Your task to perform on an android device: Go to network settings Image 0: 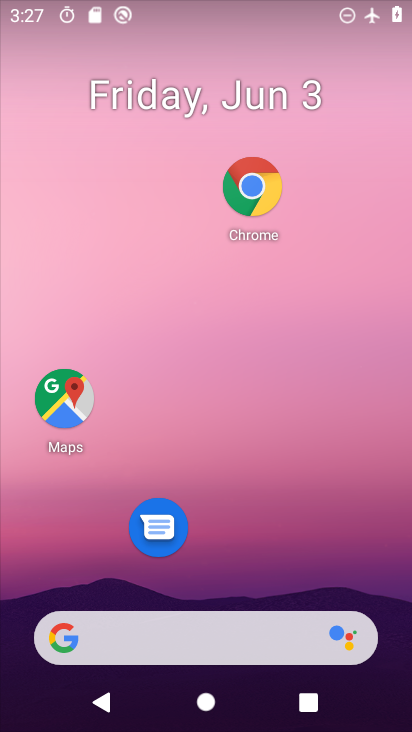
Step 0: drag from (221, 583) to (236, 214)
Your task to perform on an android device: Go to network settings Image 1: 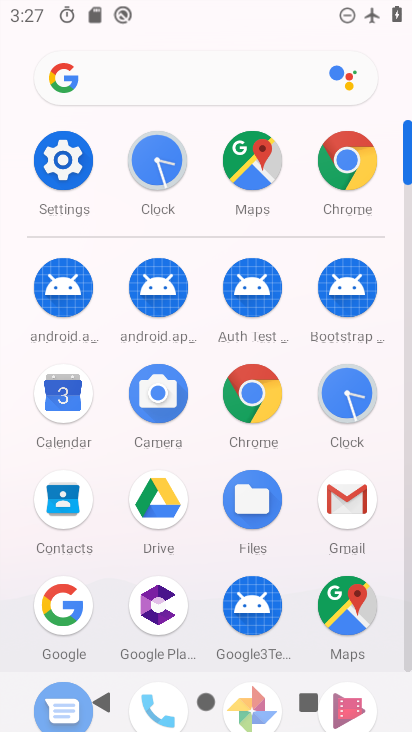
Step 1: click (65, 150)
Your task to perform on an android device: Go to network settings Image 2: 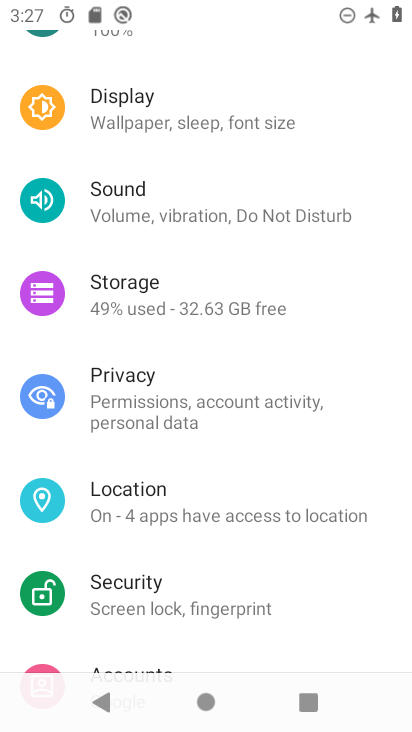
Step 2: drag from (212, 122) to (176, 607)
Your task to perform on an android device: Go to network settings Image 3: 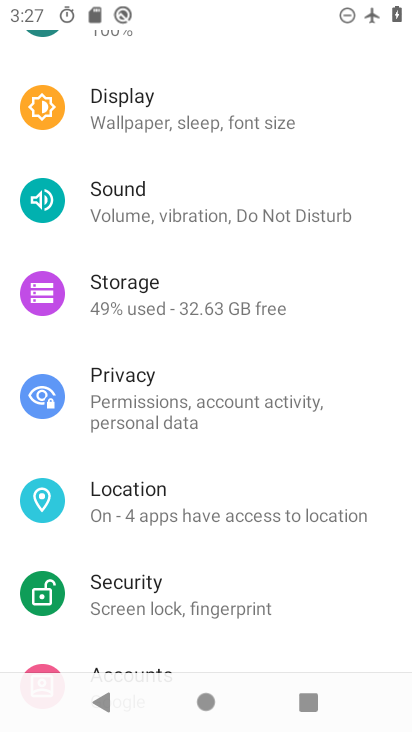
Step 3: drag from (225, 157) to (230, 438)
Your task to perform on an android device: Go to network settings Image 4: 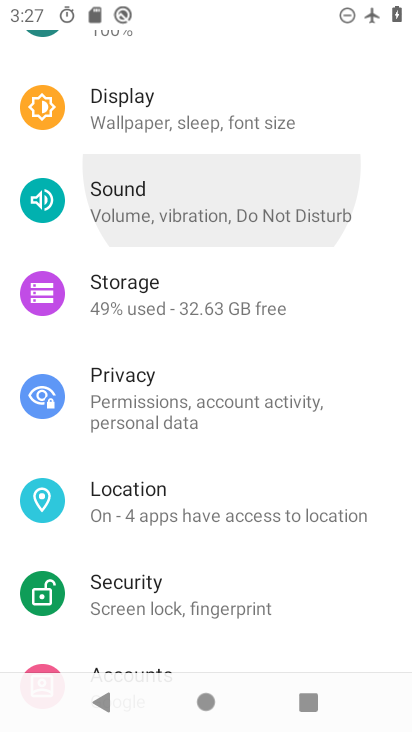
Step 4: drag from (207, 203) to (167, 411)
Your task to perform on an android device: Go to network settings Image 5: 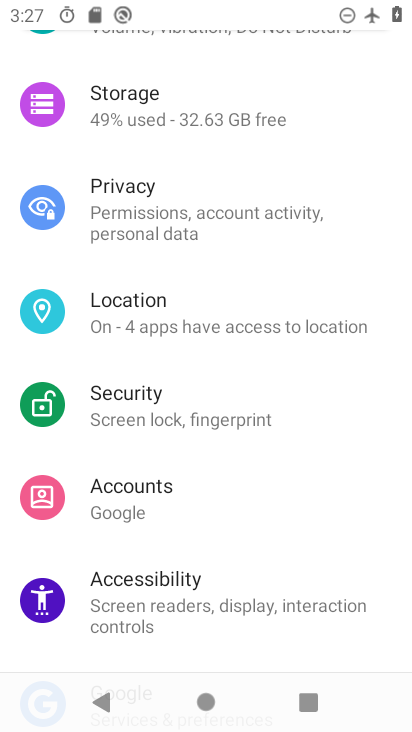
Step 5: drag from (148, 169) to (176, 516)
Your task to perform on an android device: Go to network settings Image 6: 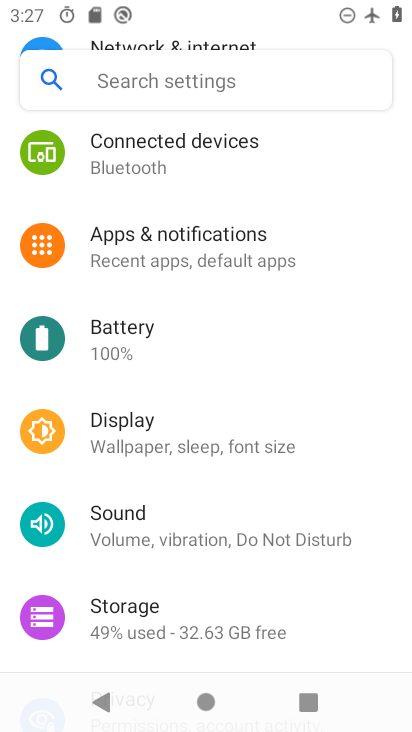
Step 6: drag from (213, 250) to (219, 511)
Your task to perform on an android device: Go to network settings Image 7: 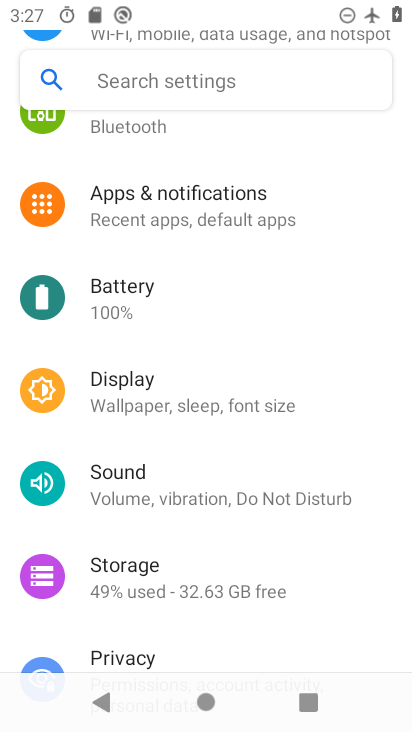
Step 7: drag from (222, 237) to (244, 580)
Your task to perform on an android device: Go to network settings Image 8: 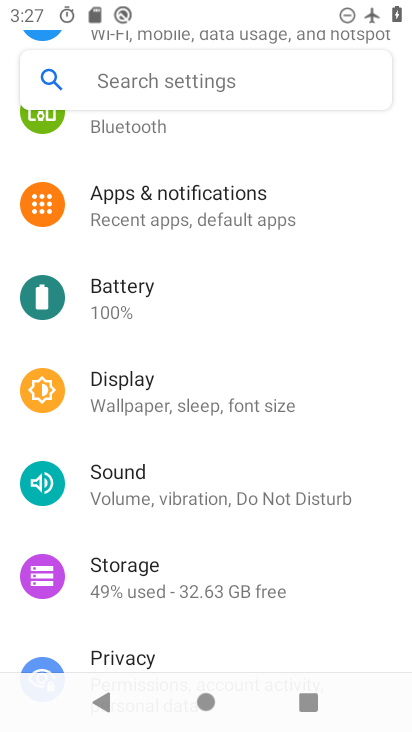
Step 8: drag from (215, 158) to (273, 554)
Your task to perform on an android device: Go to network settings Image 9: 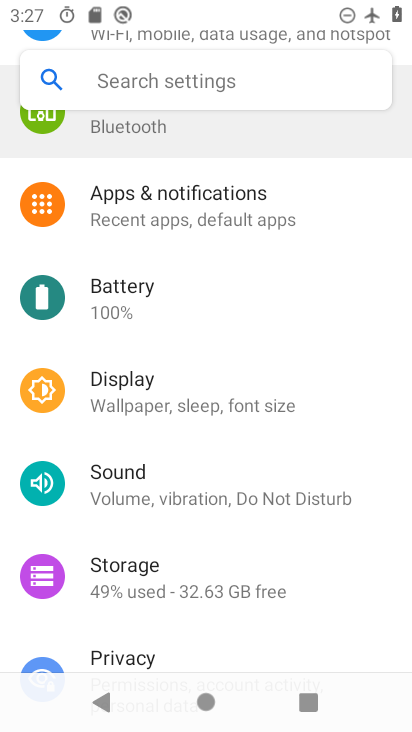
Step 9: drag from (286, 182) to (270, 551)
Your task to perform on an android device: Go to network settings Image 10: 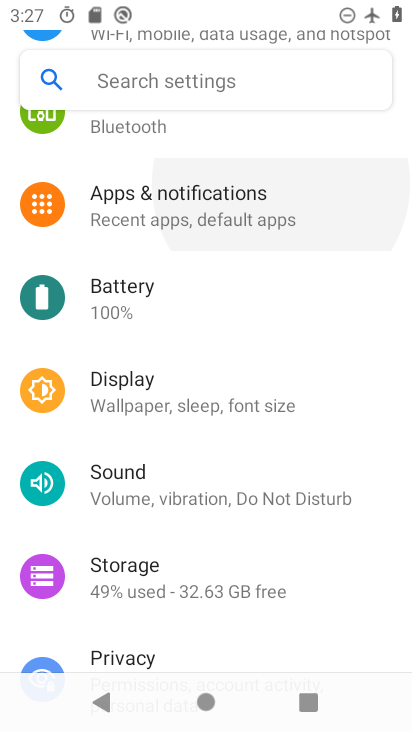
Step 10: drag from (192, 288) to (162, 516)
Your task to perform on an android device: Go to network settings Image 11: 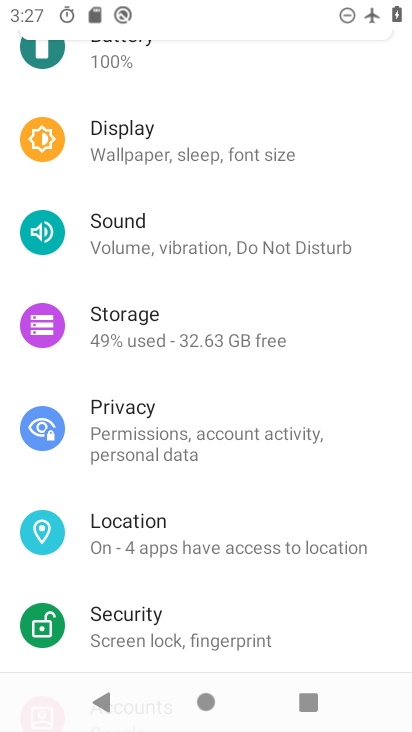
Step 11: drag from (156, 262) to (177, 561)
Your task to perform on an android device: Go to network settings Image 12: 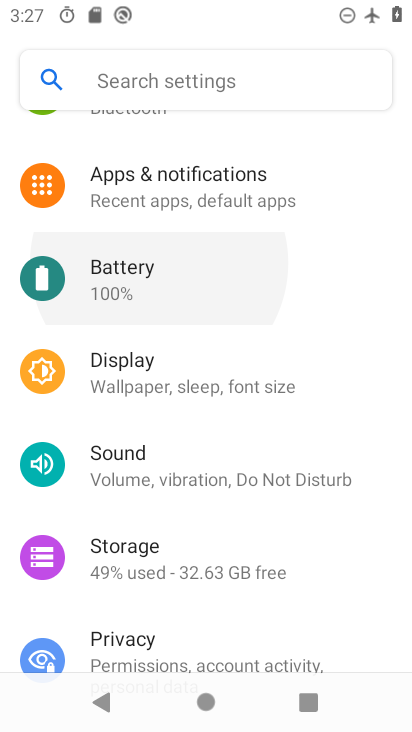
Step 12: drag from (176, 186) to (241, 570)
Your task to perform on an android device: Go to network settings Image 13: 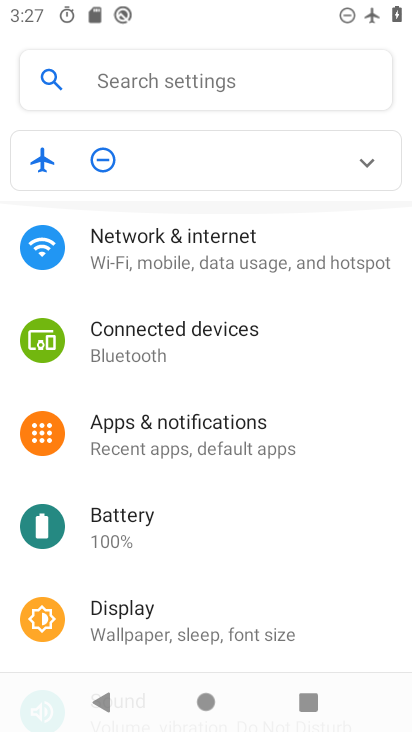
Step 13: drag from (204, 143) to (169, 366)
Your task to perform on an android device: Go to network settings Image 14: 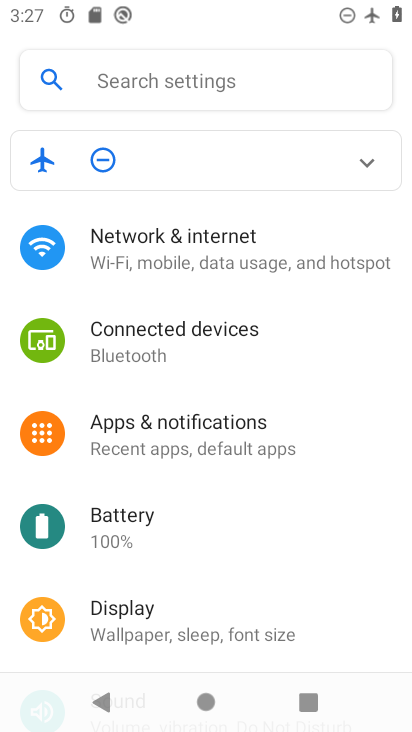
Step 14: drag from (127, 166) to (177, 589)
Your task to perform on an android device: Go to network settings Image 15: 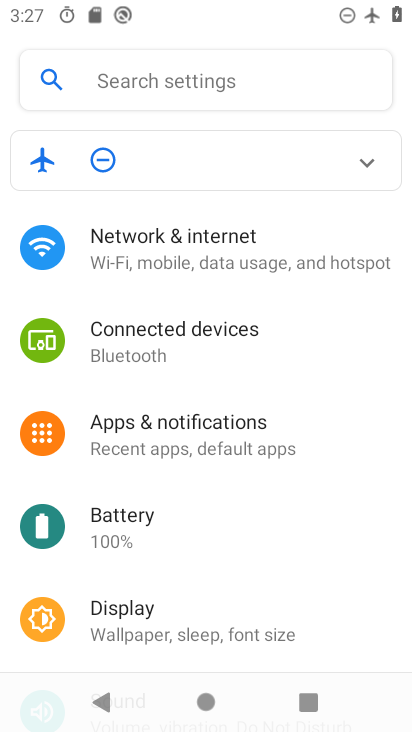
Step 15: click (199, 263)
Your task to perform on an android device: Go to network settings Image 16: 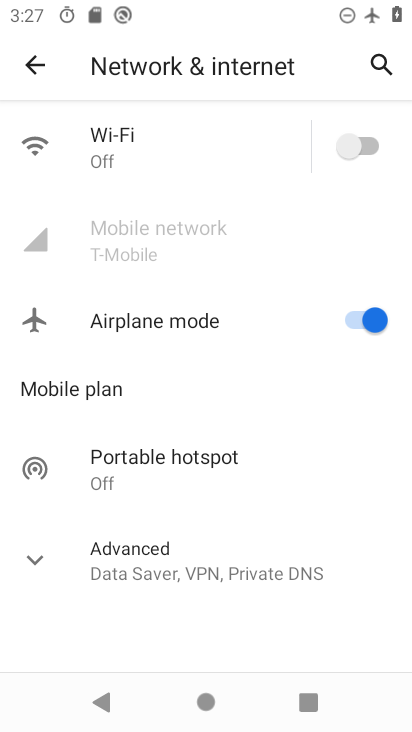
Step 16: task complete